Your task to perform on an android device: How much does a 2 bedroom apartment rent for in Philadelphia? Image 0: 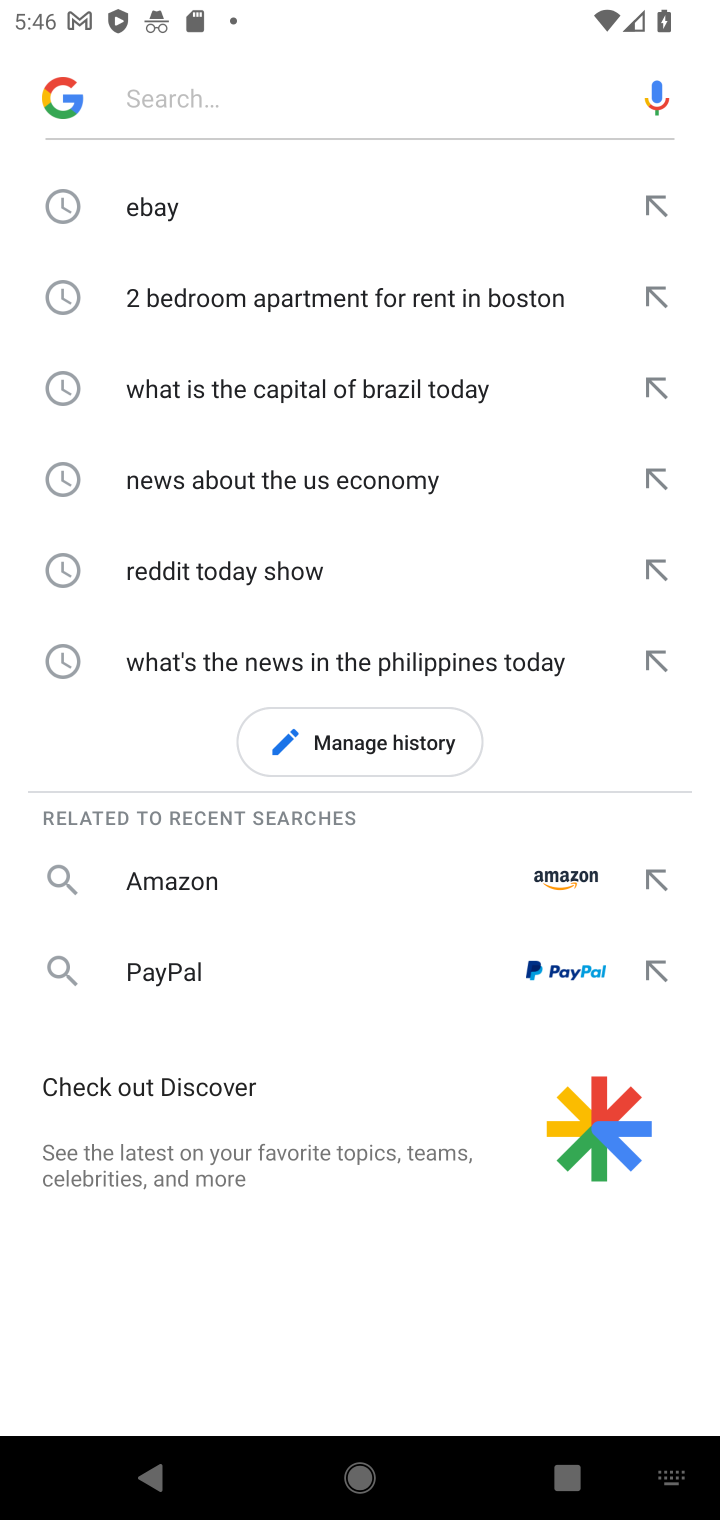
Step 0: press home button
Your task to perform on an android device: How much does a 2 bedroom apartment rent for in Philadelphia? Image 1: 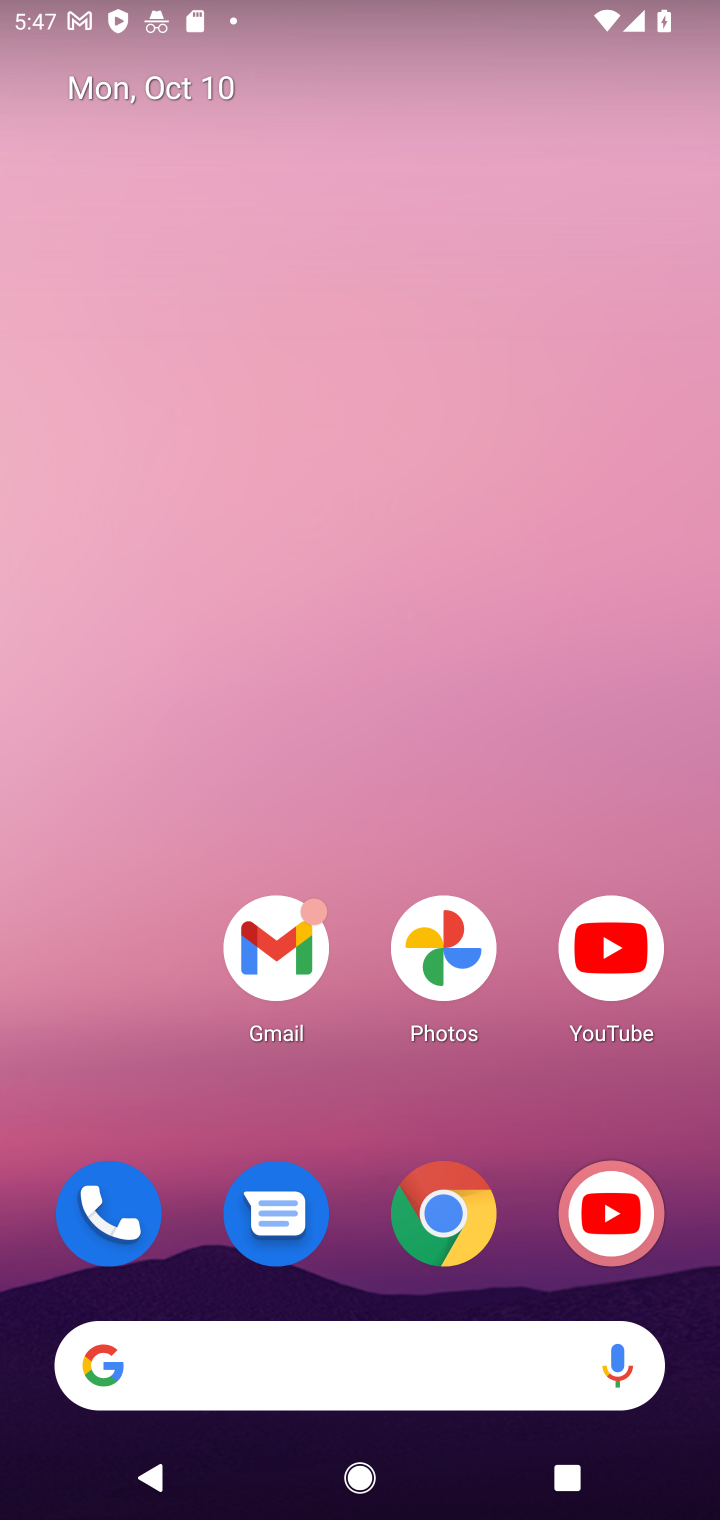
Step 1: click (415, 1393)
Your task to perform on an android device: How much does a 2 bedroom apartment rent for in Philadelphia? Image 2: 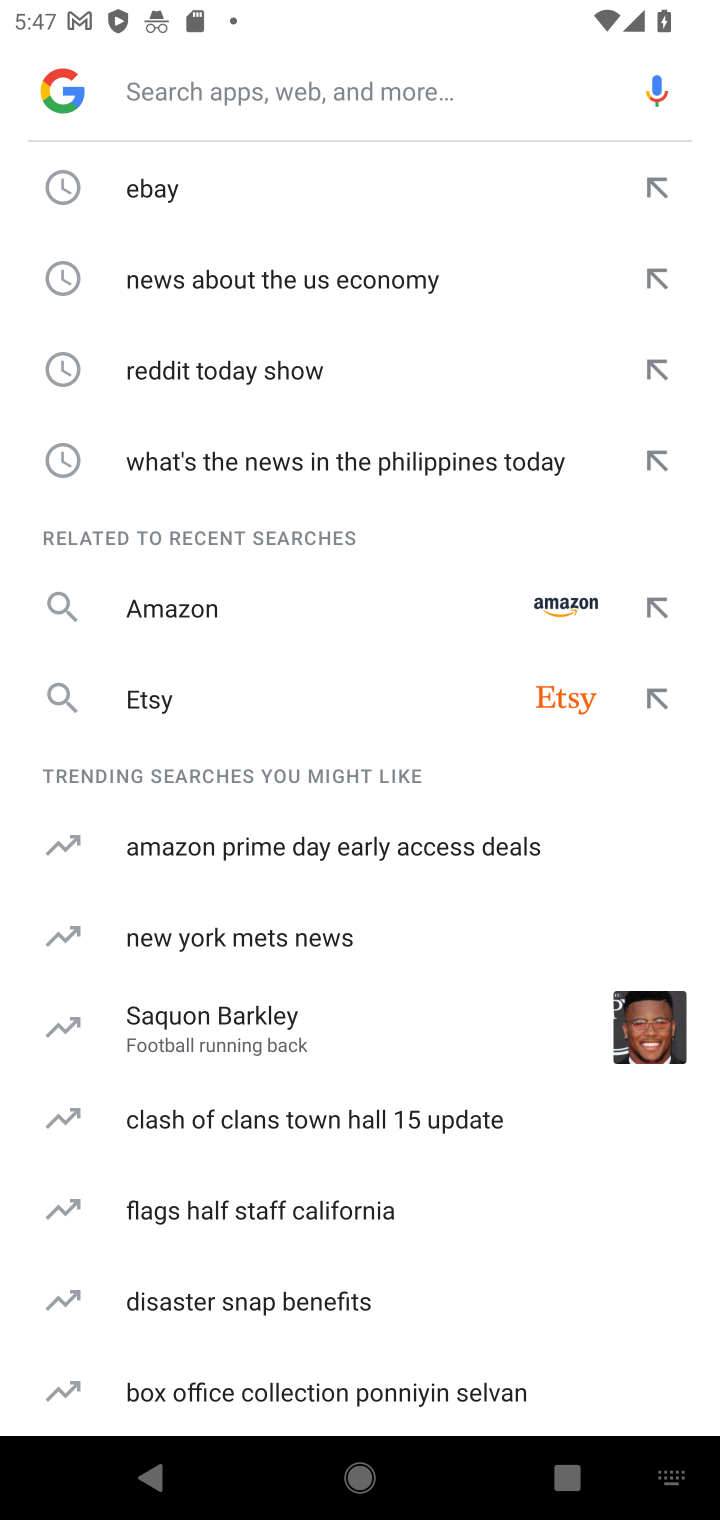
Step 2: type "How much does a 2 bedroom apartment rent for in Philadelphia?"
Your task to perform on an android device: How much does a 2 bedroom apartment rent for in Philadelphia? Image 3: 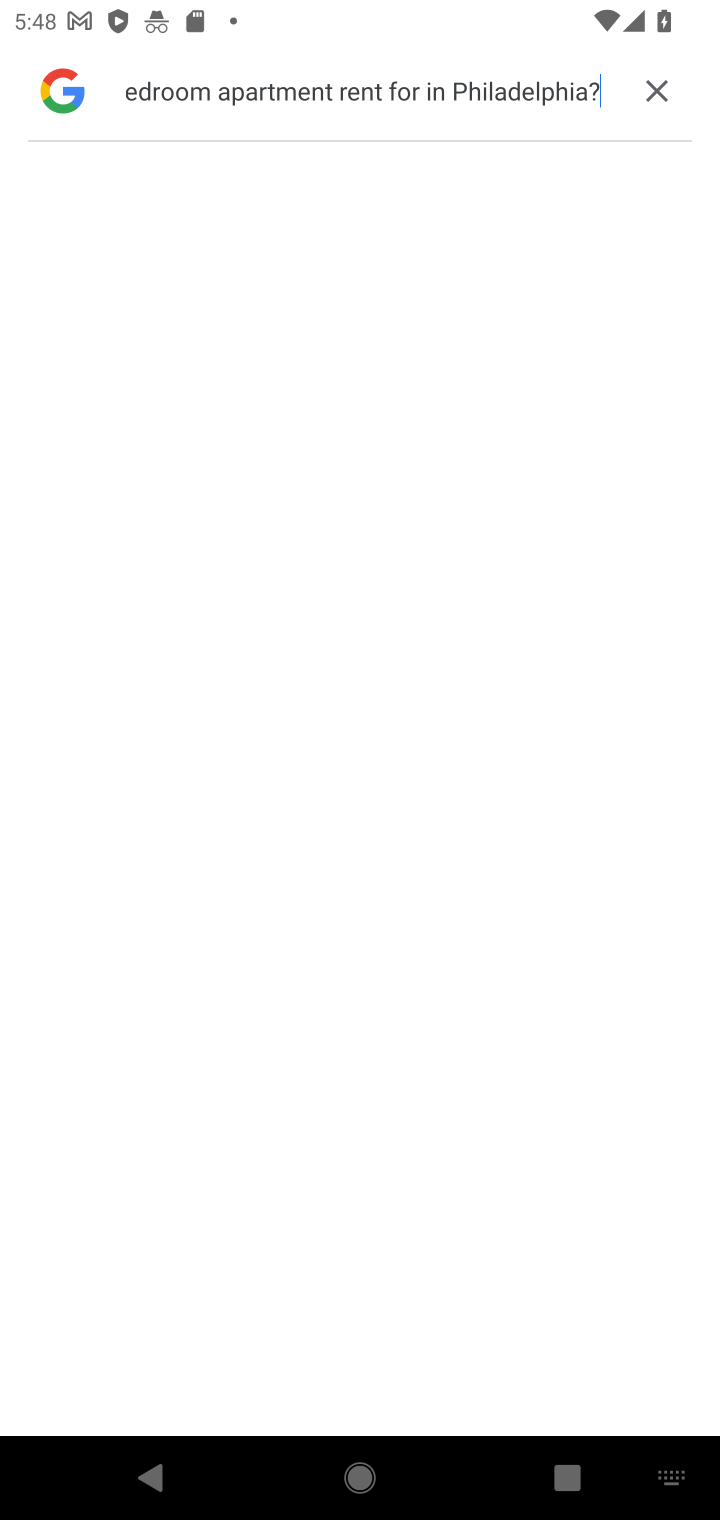
Step 3: task complete